Your task to perform on an android device: Go to internet settings Image 0: 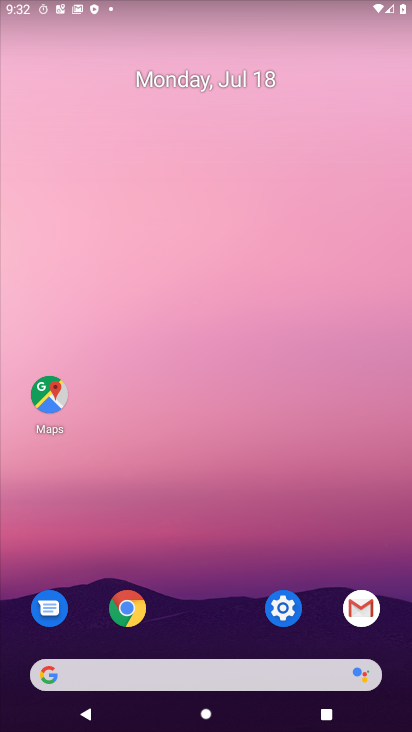
Step 0: drag from (352, 515) to (408, 95)
Your task to perform on an android device: Go to internet settings Image 1: 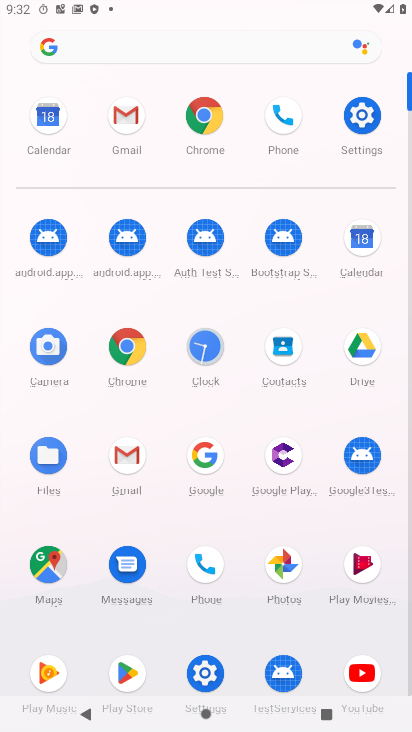
Step 1: click (365, 119)
Your task to perform on an android device: Go to internet settings Image 2: 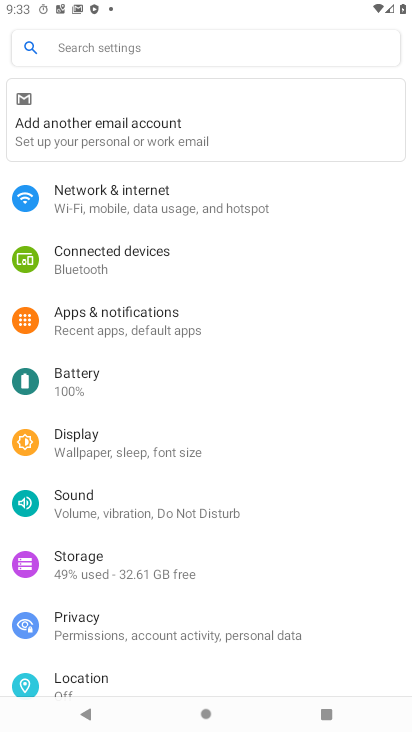
Step 2: click (177, 197)
Your task to perform on an android device: Go to internet settings Image 3: 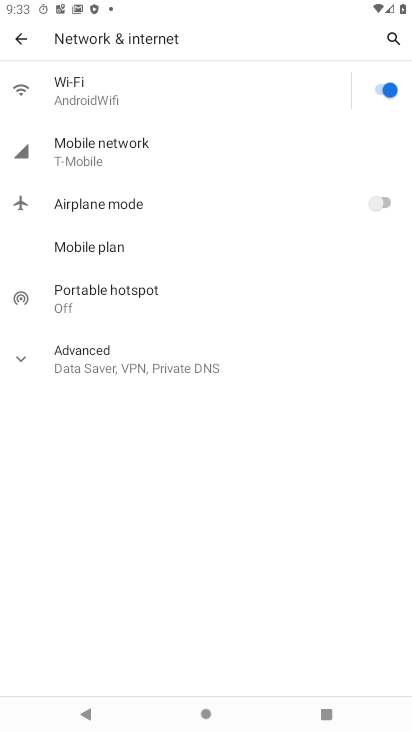
Step 3: task complete